Your task to perform on an android device: find which apps use the phone's location Image 0: 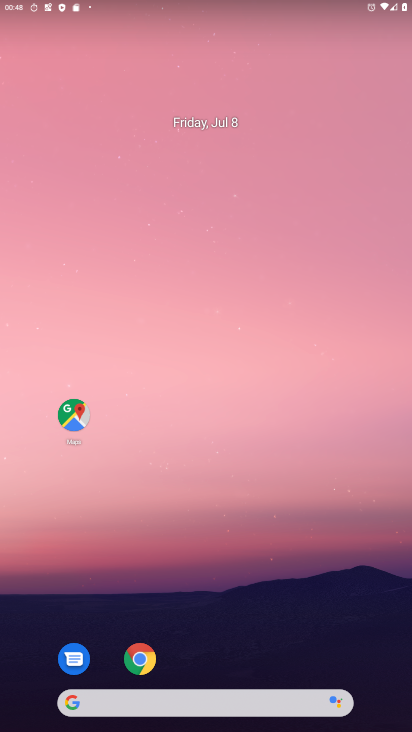
Step 0: drag from (227, 11) to (276, 706)
Your task to perform on an android device: find which apps use the phone's location Image 1: 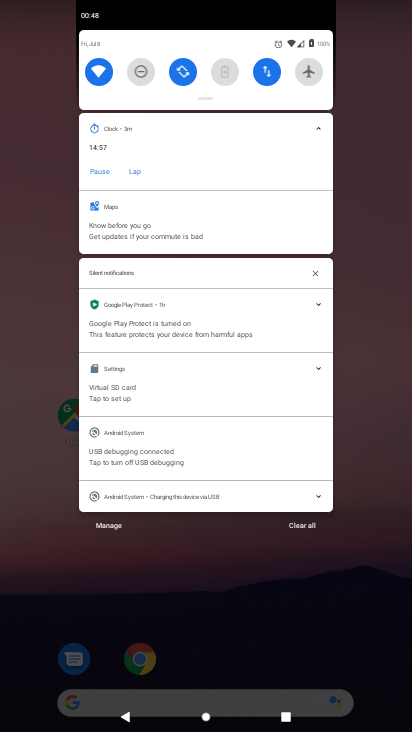
Step 1: drag from (215, 47) to (270, 575)
Your task to perform on an android device: find which apps use the phone's location Image 2: 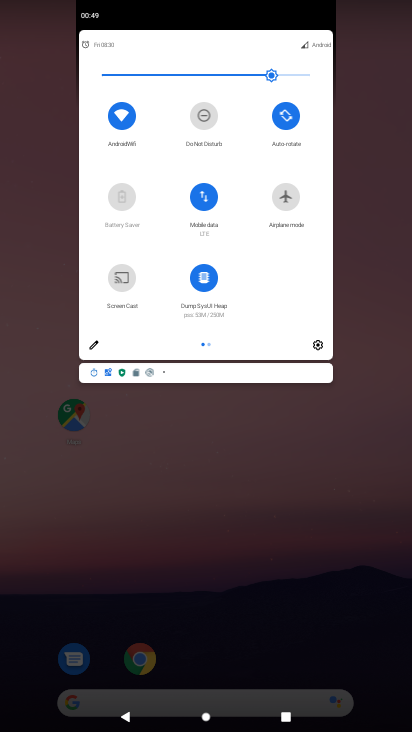
Step 2: click (319, 349)
Your task to perform on an android device: find which apps use the phone's location Image 3: 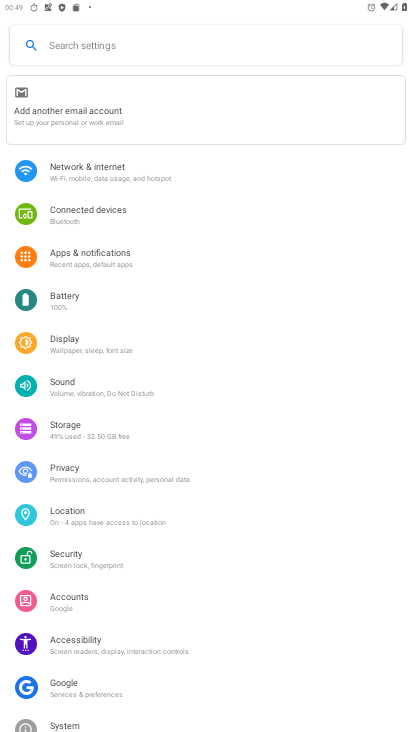
Step 3: click (84, 529)
Your task to perform on an android device: find which apps use the phone's location Image 4: 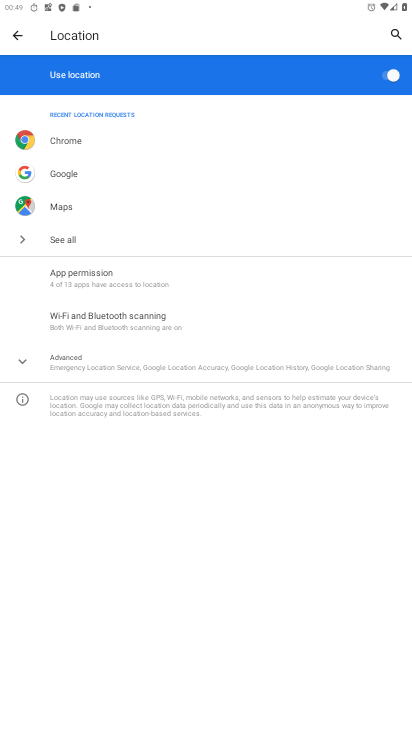
Step 4: click (119, 238)
Your task to perform on an android device: find which apps use the phone's location Image 5: 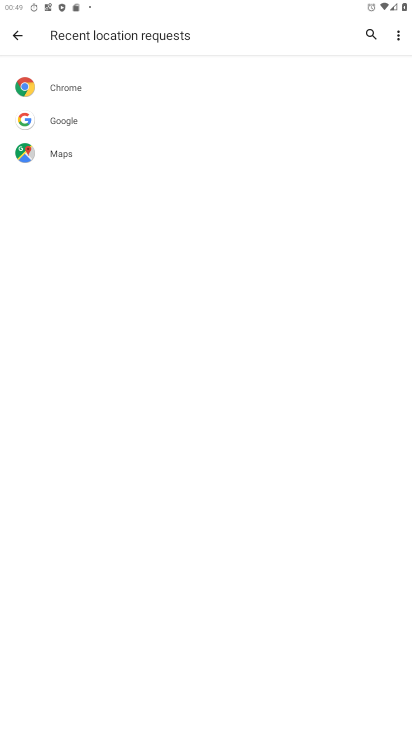
Step 5: task complete